Your task to perform on an android device: What's on my calendar tomorrow? Image 0: 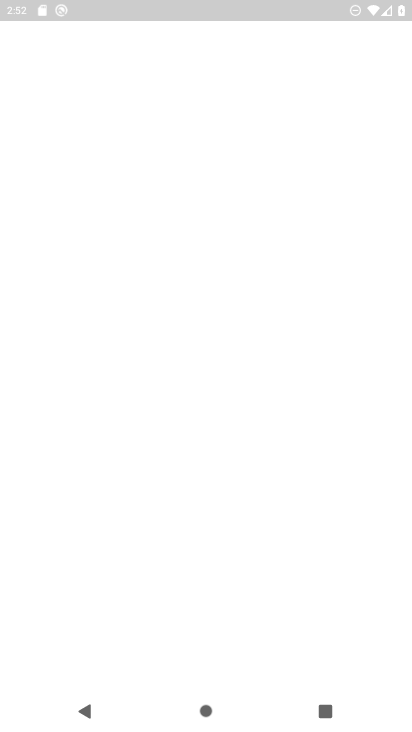
Step 0: drag from (199, 569) to (200, 54)
Your task to perform on an android device: What's on my calendar tomorrow? Image 1: 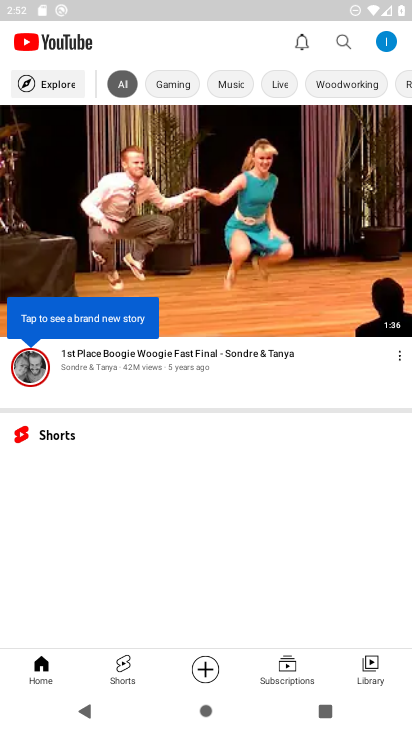
Step 1: press home button
Your task to perform on an android device: What's on my calendar tomorrow? Image 2: 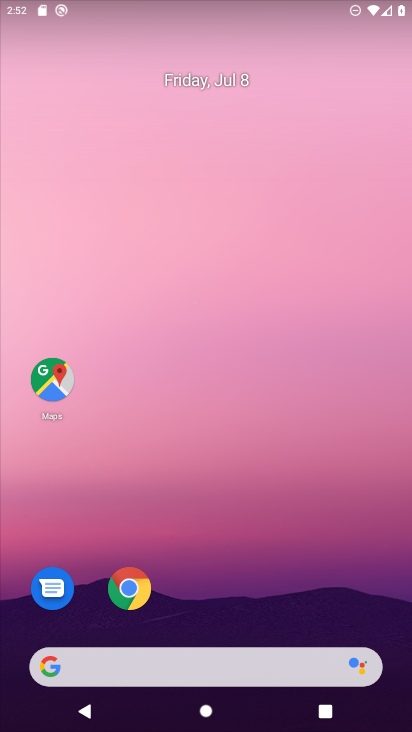
Step 2: drag from (227, 297) to (224, 180)
Your task to perform on an android device: What's on my calendar tomorrow? Image 3: 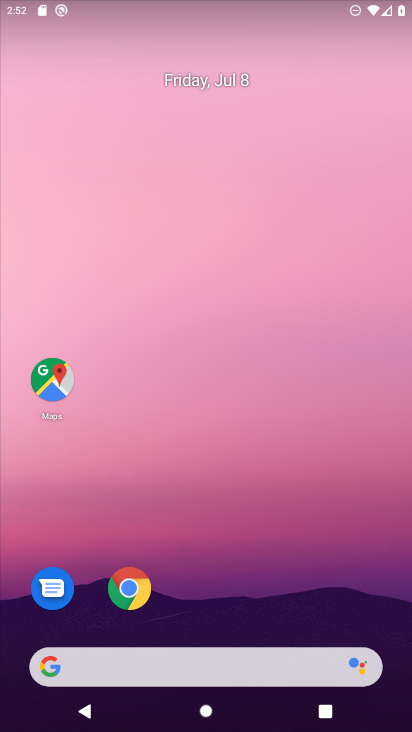
Step 3: drag from (208, 588) to (232, 38)
Your task to perform on an android device: What's on my calendar tomorrow? Image 4: 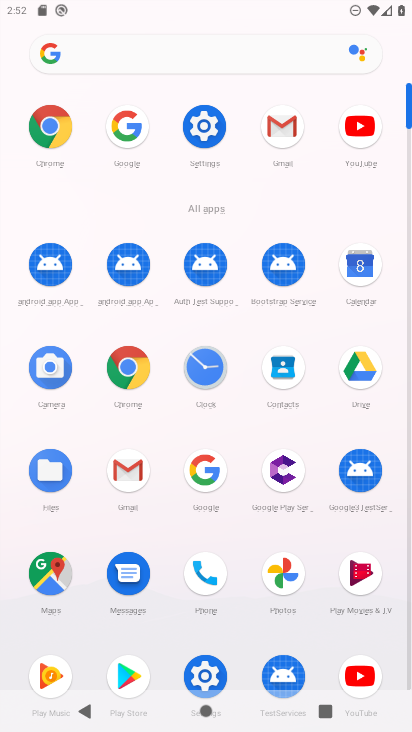
Step 4: click (360, 264)
Your task to perform on an android device: What's on my calendar tomorrow? Image 5: 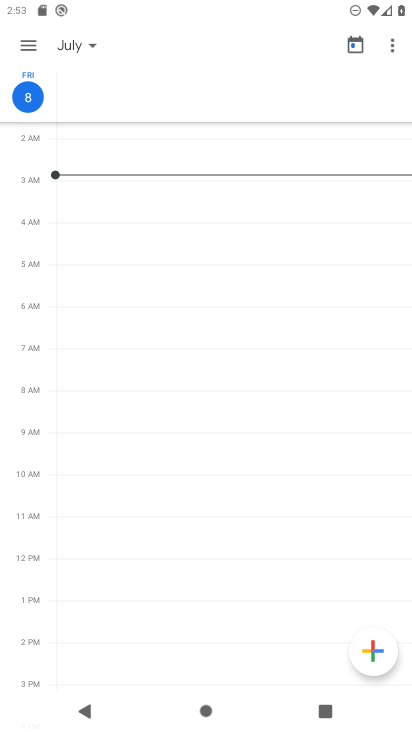
Step 5: click (64, 48)
Your task to perform on an android device: What's on my calendar tomorrow? Image 6: 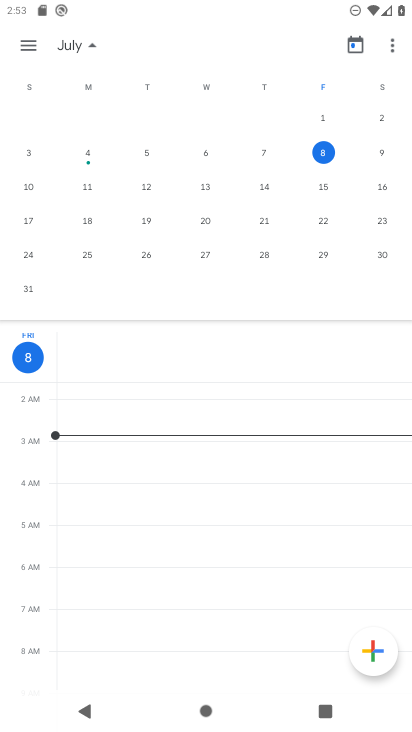
Step 6: click (383, 155)
Your task to perform on an android device: What's on my calendar tomorrow? Image 7: 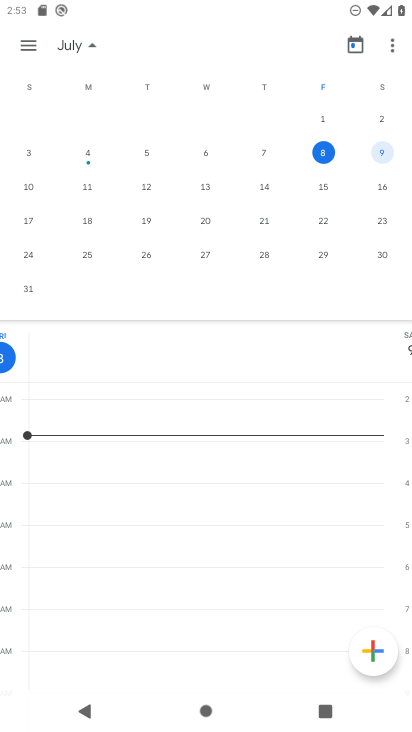
Step 7: click (383, 155)
Your task to perform on an android device: What's on my calendar tomorrow? Image 8: 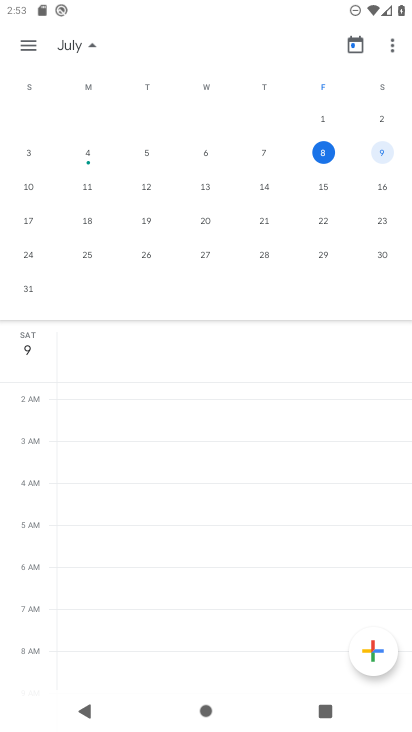
Step 8: task complete